Your task to perform on an android device: add a contact Image 0: 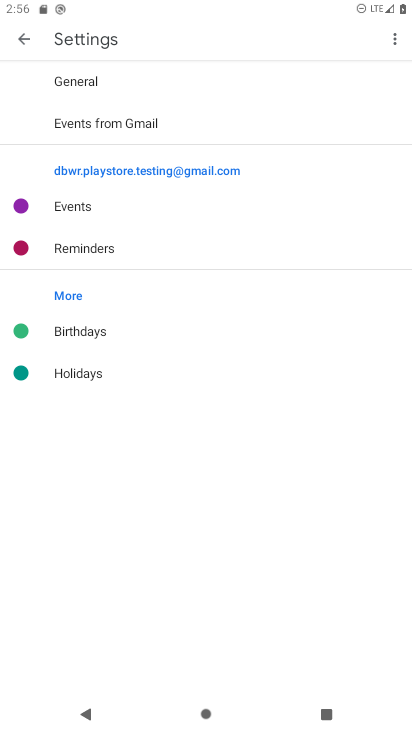
Step 0: press home button
Your task to perform on an android device: add a contact Image 1: 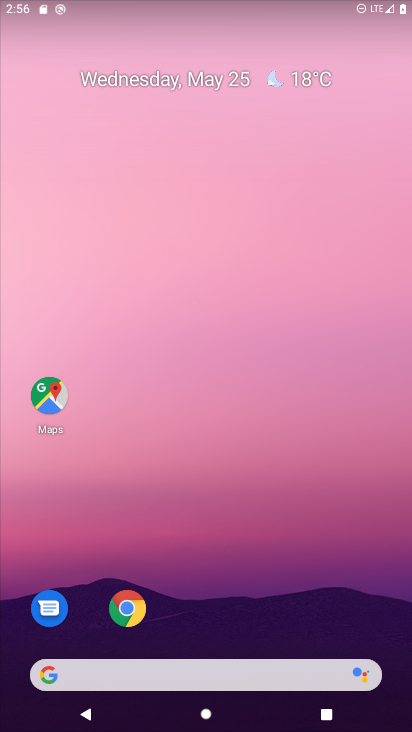
Step 1: drag from (382, 626) to (311, 115)
Your task to perform on an android device: add a contact Image 2: 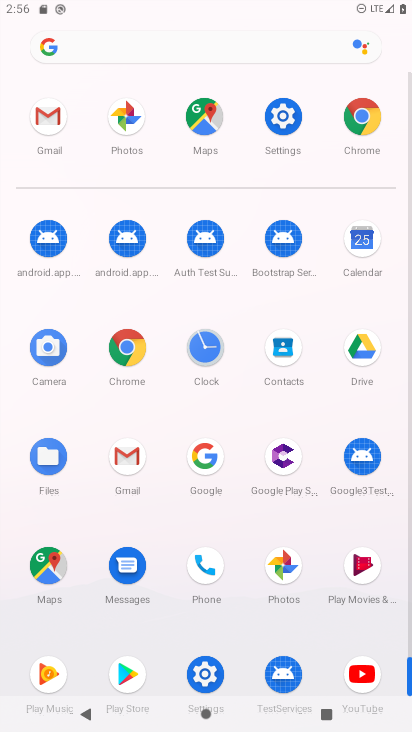
Step 2: click (278, 349)
Your task to perform on an android device: add a contact Image 3: 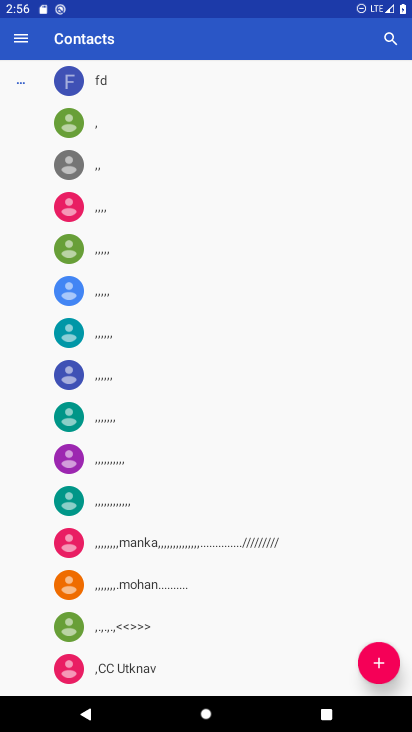
Step 3: click (377, 659)
Your task to perform on an android device: add a contact Image 4: 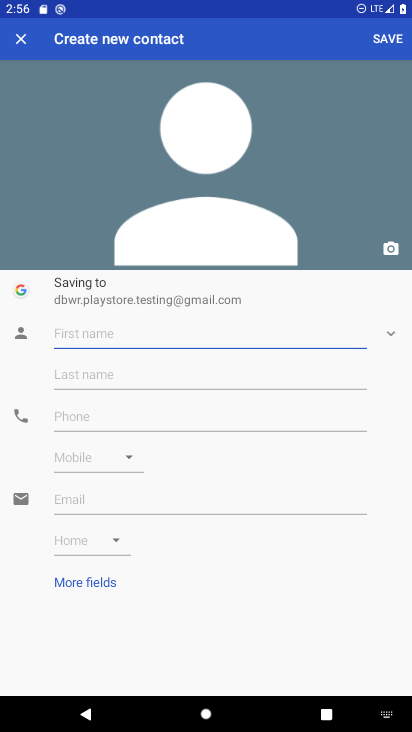
Step 4: type "kjhiuijm"
Your task to perform on an android device: add a contact Image 5: 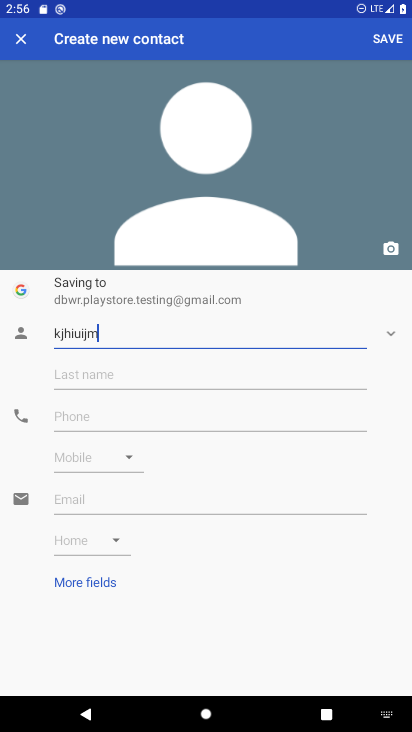
Step 5: click (96, 417)
Your task to perform on an android device: add a contact Image 6: 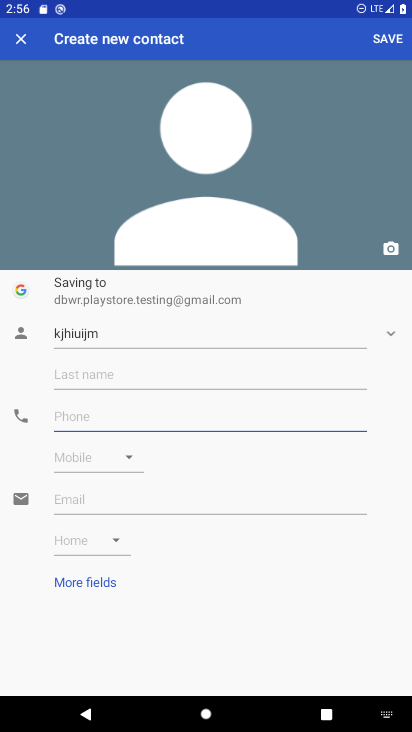
Step 6: type "098765ee345"
Your task to perform on an android device: add a contact Image 7: 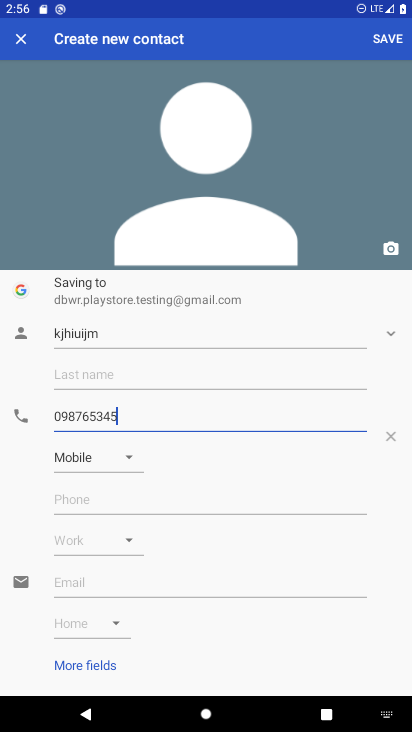
Step 7: click (127, 450)
Your task to perform on an android device: add a contact Image 8: 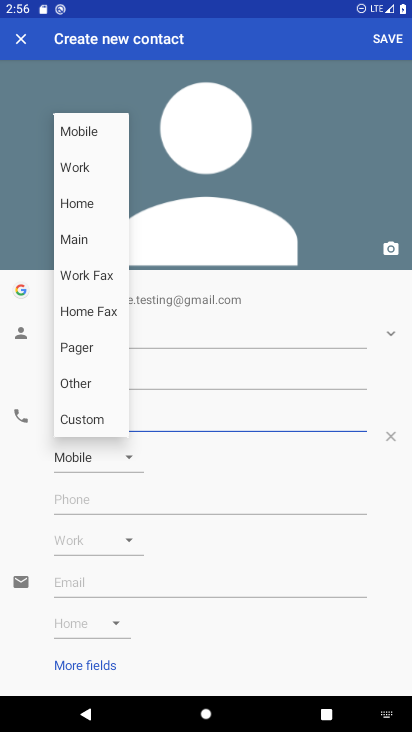
Step 8: click (75, 204)
Your task to perform on an android device: add a contact Image 9: 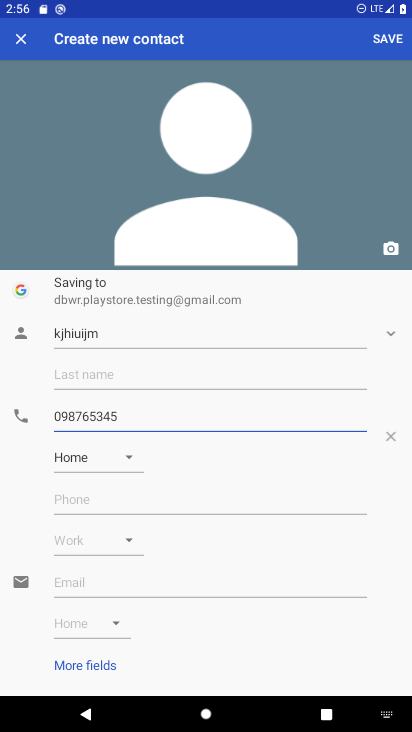
Step 9: click (385, 34)
Your task to perform on an android device: add a contact Image 10: 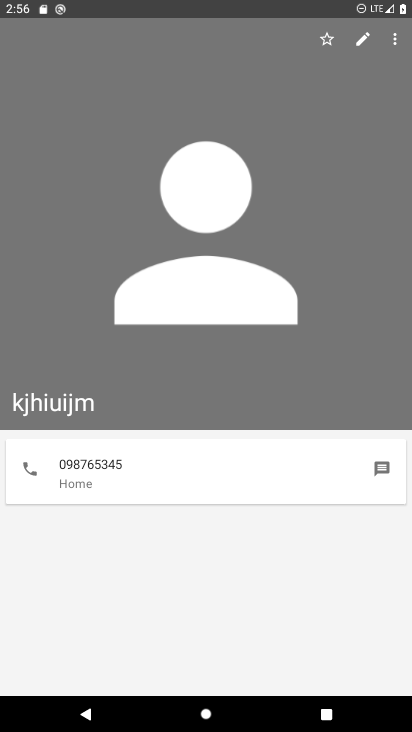
Step 10: task complete